Your task to perform on an android device: open chrome and create a bookmark for the current page Image 0: 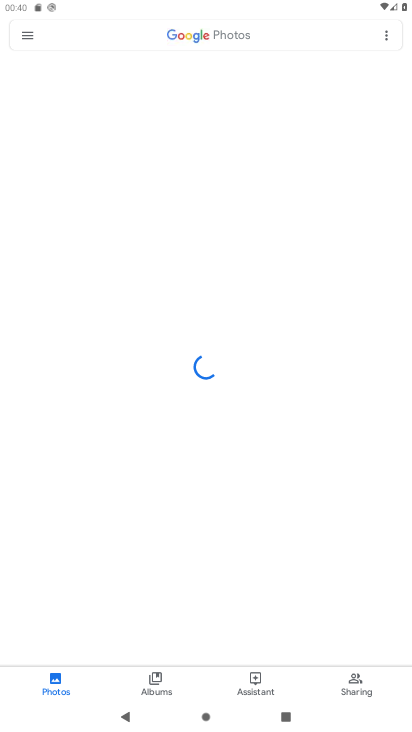
Step 0: press home button
Your task to perform on an android device: open chrome and create a bookmark for the current page Image 1: 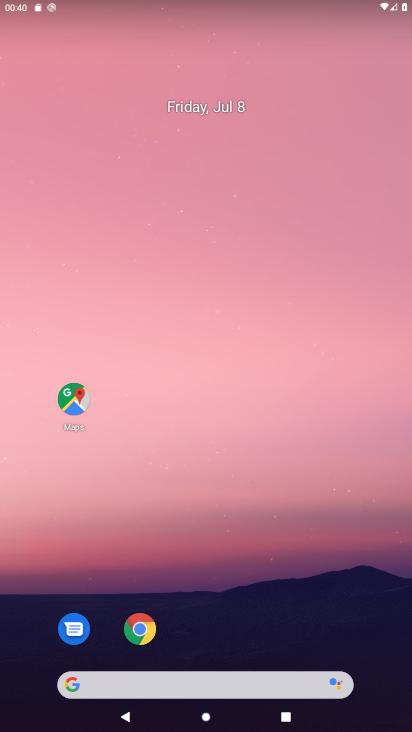
Step 1: click (138, 637)
Your task to perform on an android device: open chrome and create a bookmark for the current page Image 2: 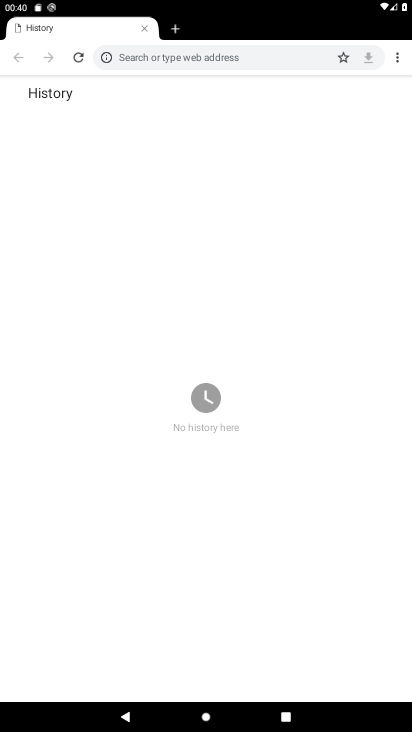
Step 2: click (404, 51)
Your task to perform on an android device: open chrome and create a bookmark for the current page Image 3: 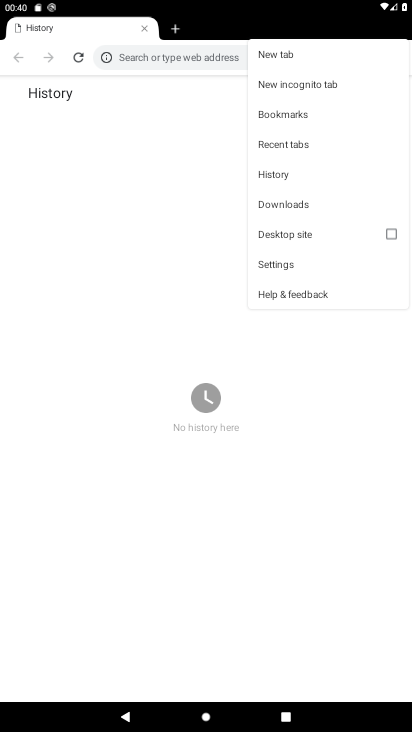
Step 3: click (116, 173)
Your task to perform on an android device: open chrome and create a bookmark for the current page Image 4: 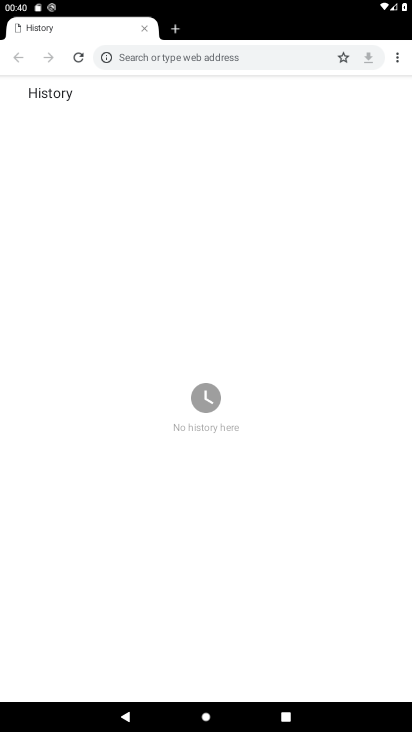
Step 4: click (340, 57)
Your task to perform on an android device: open chrome and create a bookmark for the current page Image 5: 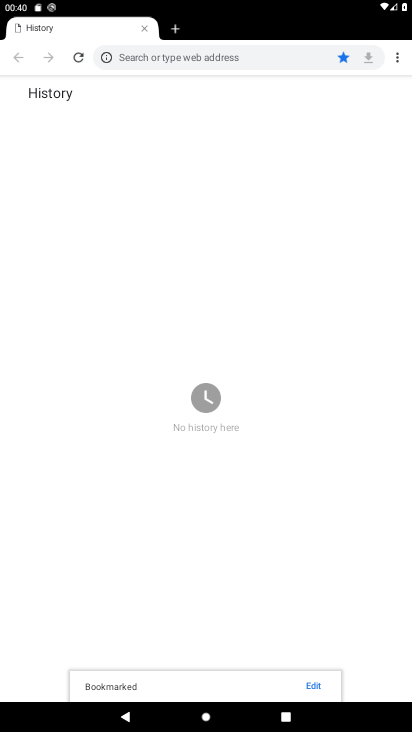
Step 5: task complete